Your task to perform on an android device: toggle sleep mode Image 0: 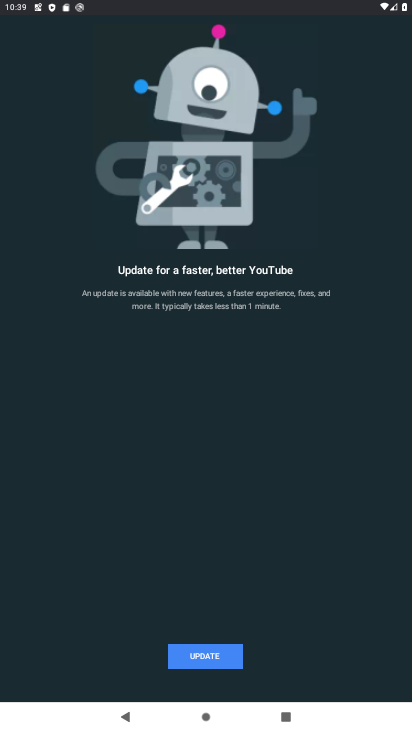
Step 0: task complete